Your task to perform on an android device: Open CNN.com Image 0: 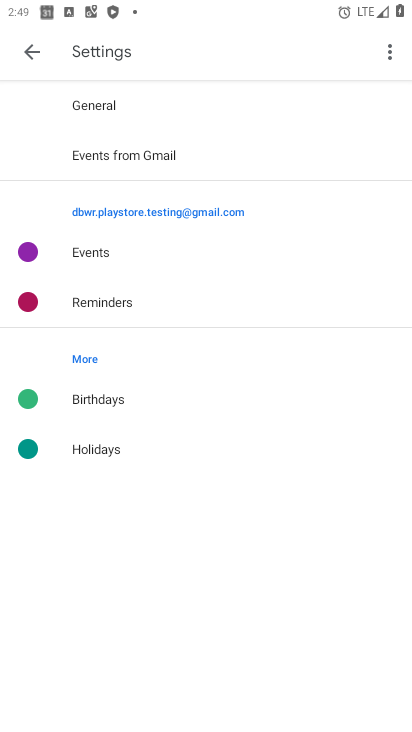
Step 0: press home button
Your task to perform on an android device: Open CNN.com Image 1: 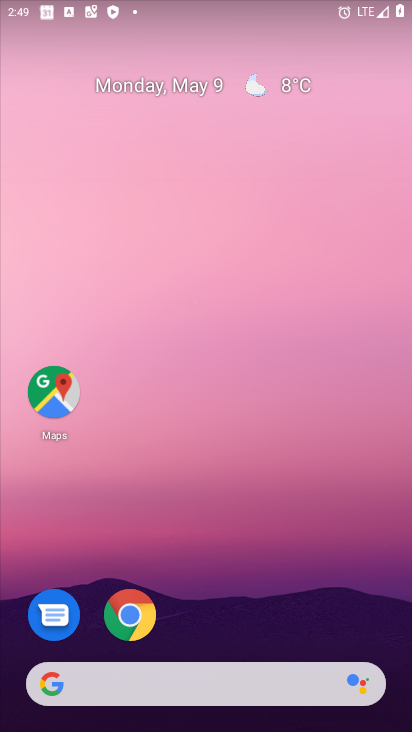
Step 1: click (131, 618)
Your task to perform on an android device: Open CNN.com Image 2: 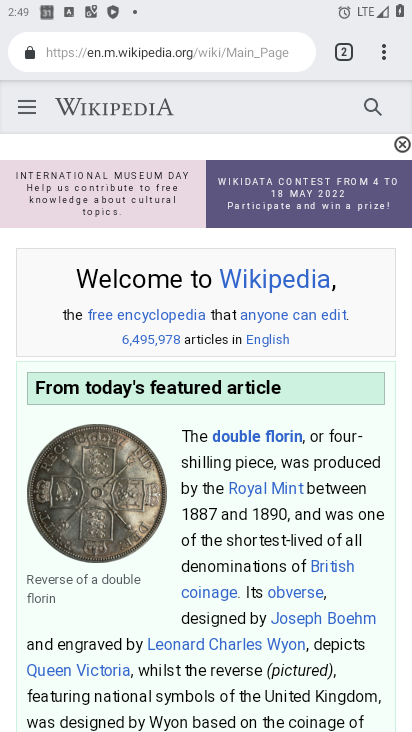
Step 2: click (121, 47)
Your task to perform on an android device: Open CNN.com Image 3: 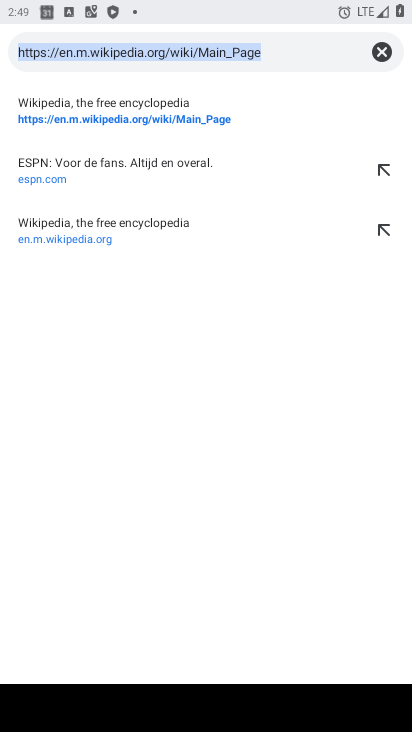
Step 3: click (385, 53)
Your task to perform on an android device: Open CNN.com Image 4: 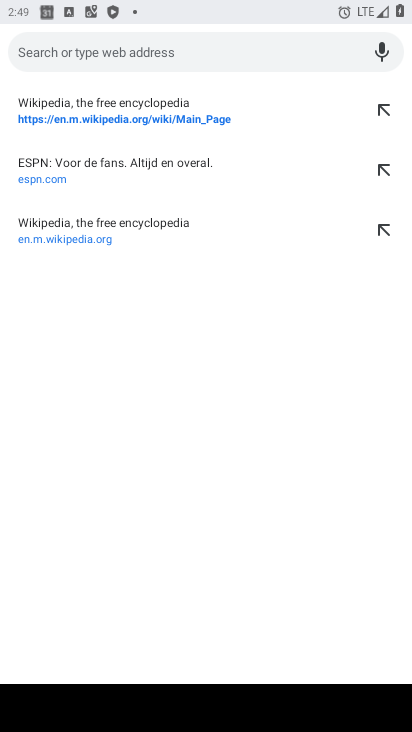
Step 4: type "cnn.com"
Your task to perform on an android device: Open CNN.com Image 5: 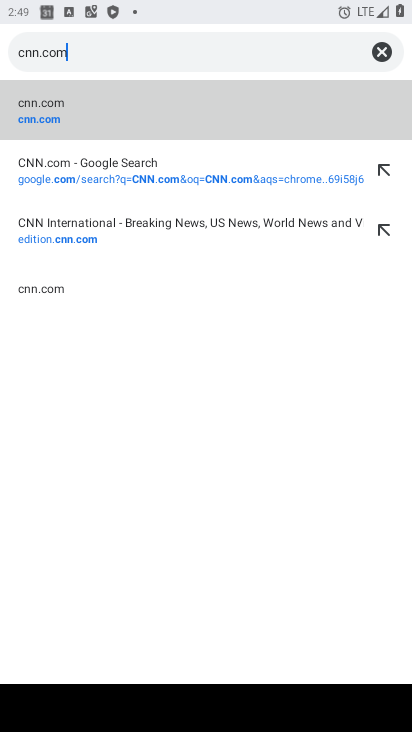
Step 5: click (40, 103)
Your task to perform on an android device: Open CNN.com Image 6: 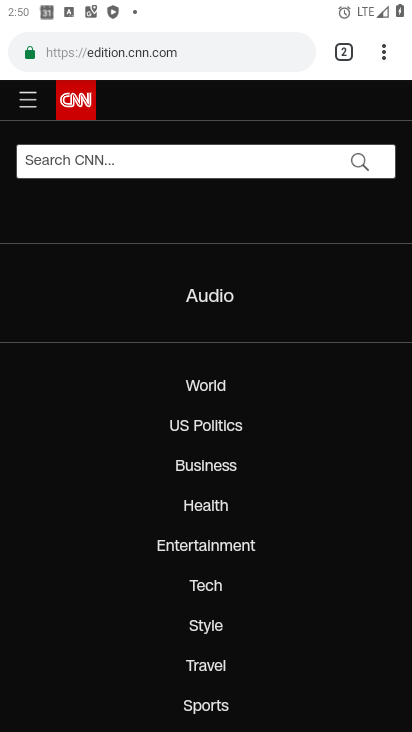
Step 6: task complete